Your task to perform on an android device: check google app version Image 0: 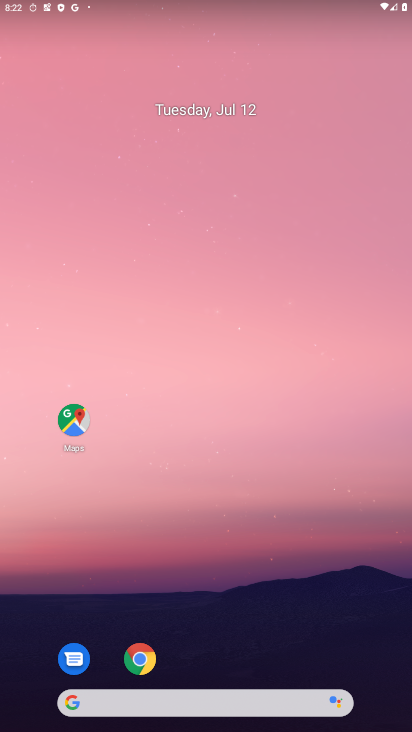
Step 0: drag from (186, 525) to (143, 271)
Your task to perform on an android device: check google app version Image 1: 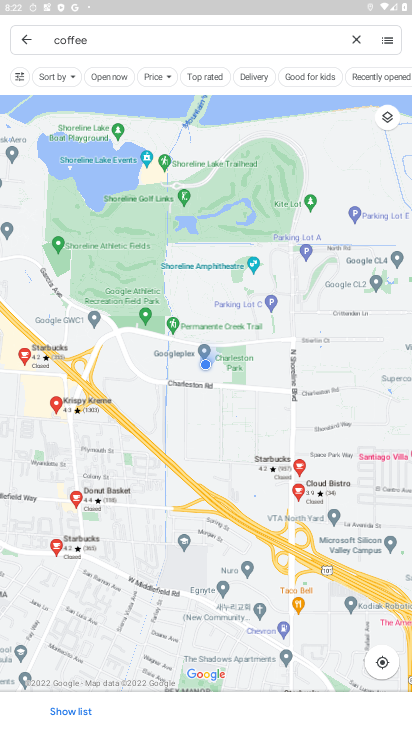
Step 1: click (25, 42)
Your task to perform on an android device: check google app version Image 2: 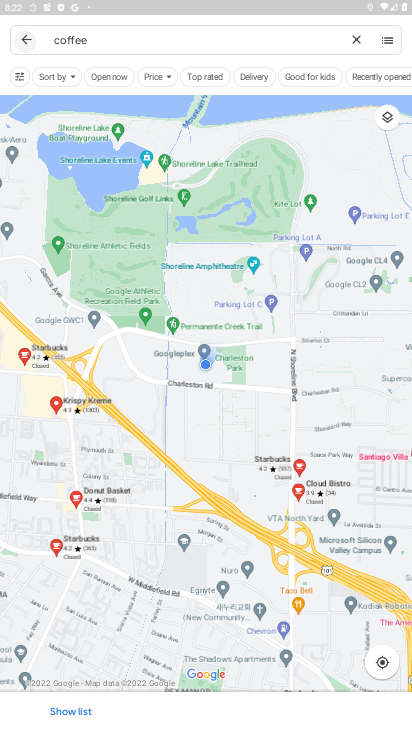
Step 2: click (26, 42)
Your task to perform on an android device: check google app version Image 3: 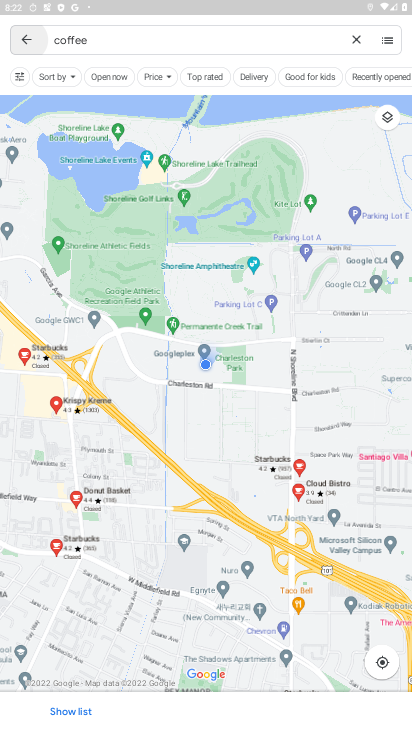
Step 3: click (28, 44)
Your task to perform on an android device: check google app version Image 4: 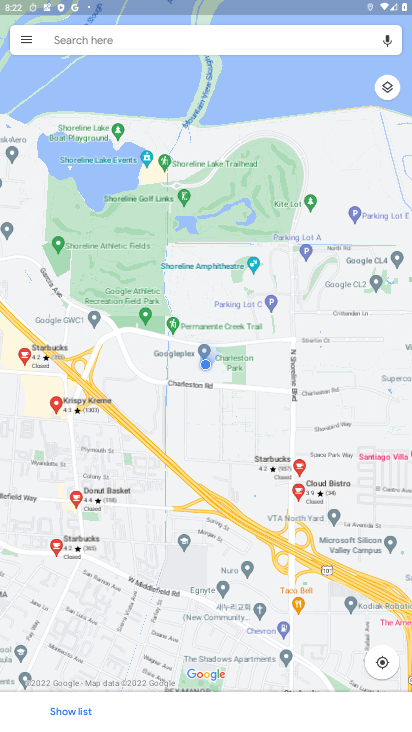
Step 4: click (29, 44)
Your task to perform on an android device: check google app version Image 5: 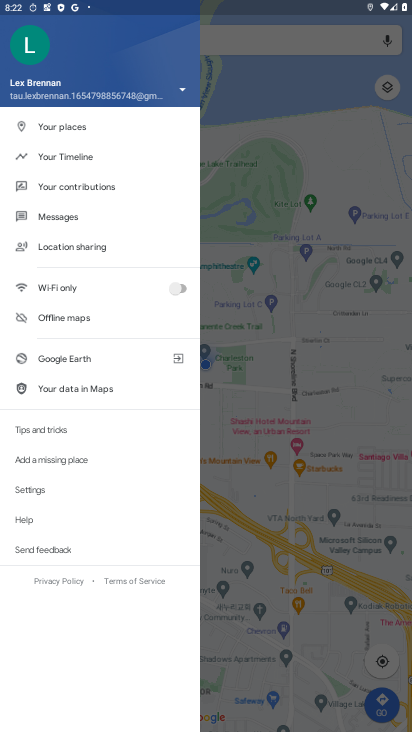
Step 5: press back button
Your task to perform on an android device: check google app version Image 6: 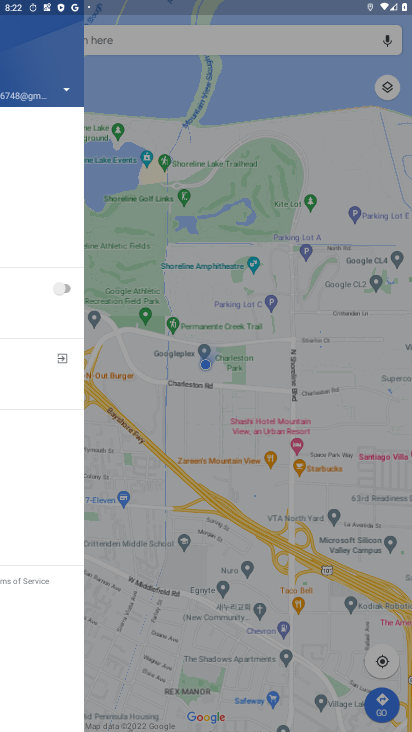
Step 6: press back button
Your task to perform on an android device: check google app version Image 7: 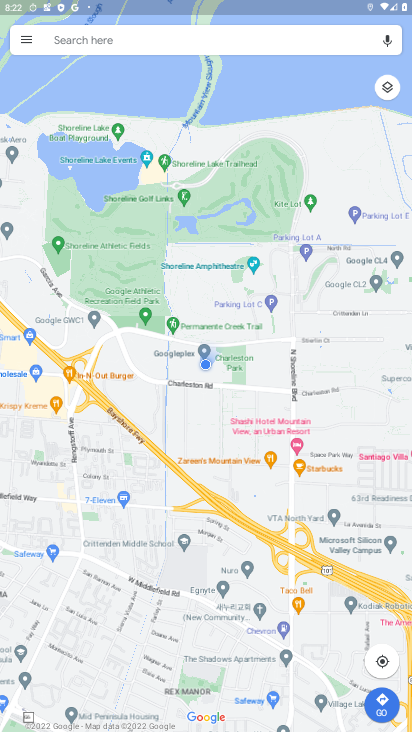
Step 7: press back button
Your task to perform on an android device: check google app version Image 8: 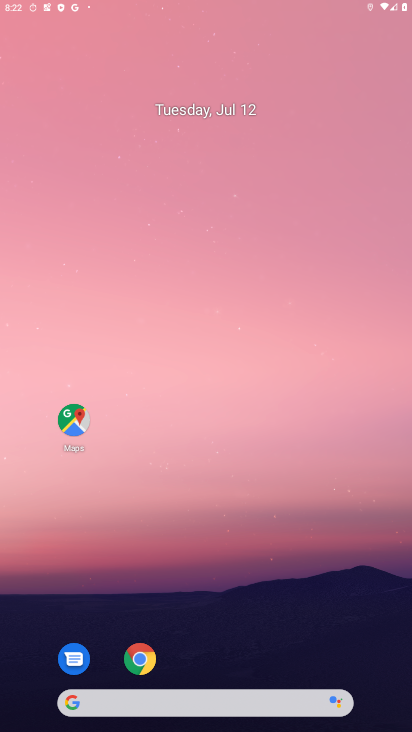
Step 8: press back button
Your task to perform on an android device: check google app version Image 9: 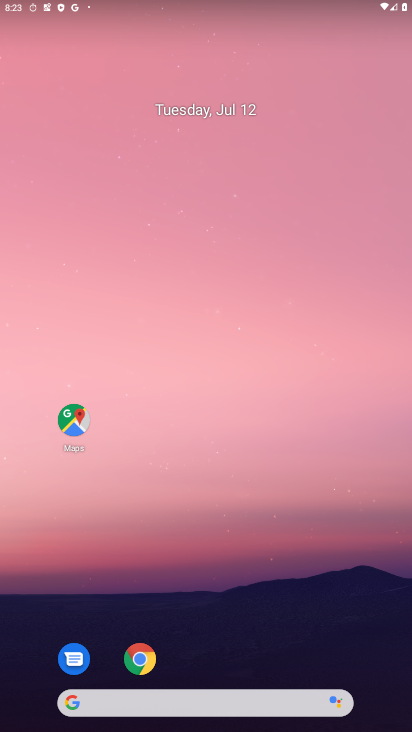
Step 9: press home button
Your task to perform on an android device: check google app version Image 10: 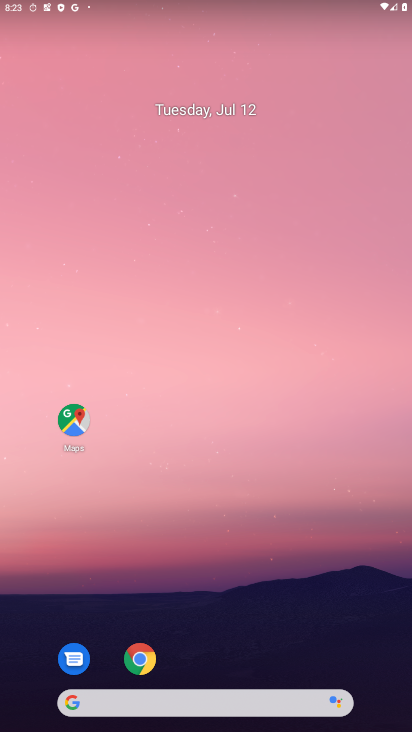
Step 10: press home button
Your task to perform on an android device: check google app version Image 11: 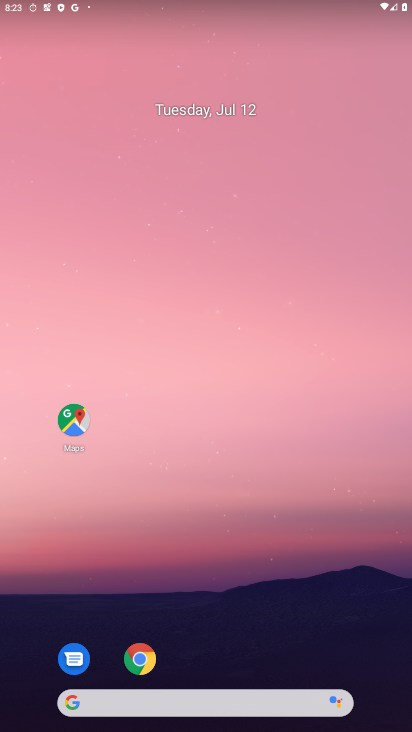
Step 11: drag from (206, 582) to (119, 145)
Your task to perform on an android device: check google app version Image 12: 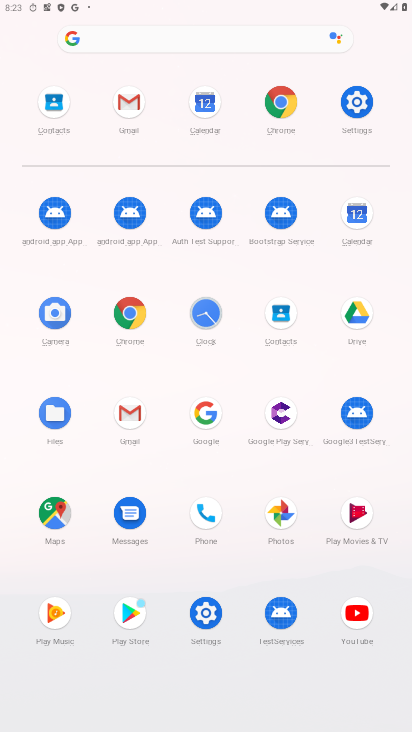
Step 12: click (209, 415)
Your task to perform on an android device: check google app version Image 13: 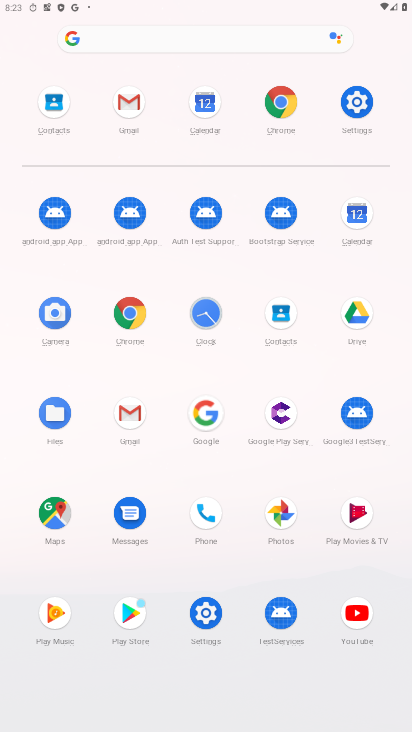
Step 13: click (210, 417)
Your task to perform on an android device: check google app version Image 14: 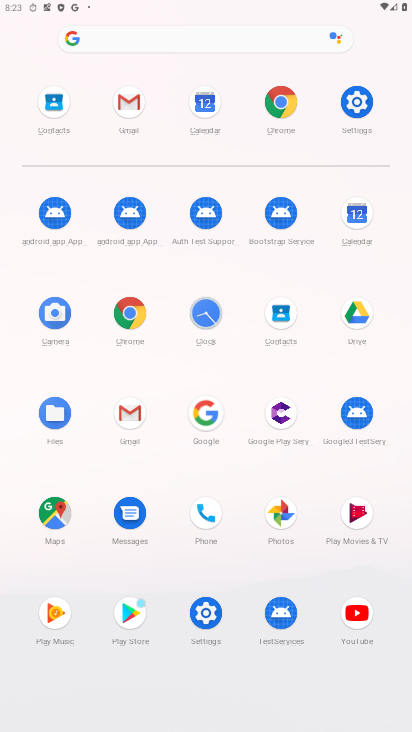
Step 14: click (210, 417)
Your task to perform on an android device: check google app version Image 15: 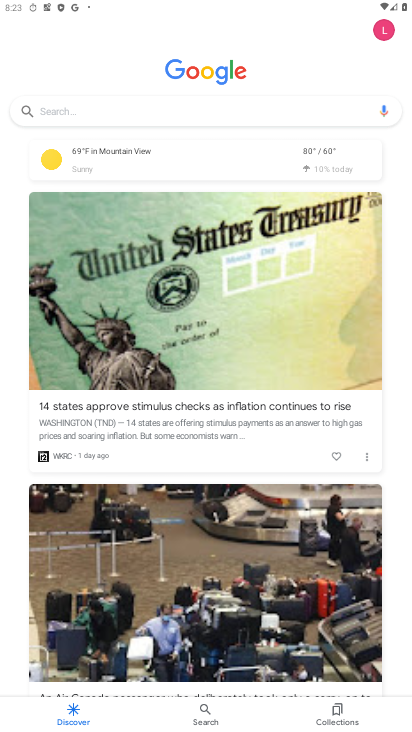
Step 15: task complete